Your task to perform on an android device: search for starred emails in the gmail app Image 0: 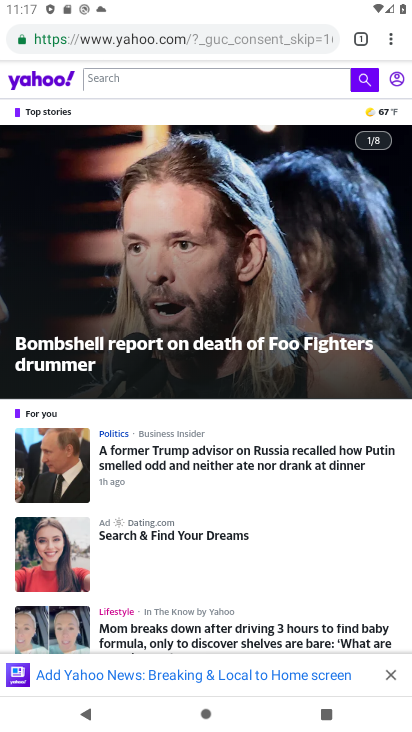
Step 0: press home button
Your task to perform on an android device: search for starred emails in the gmail app Image 1: 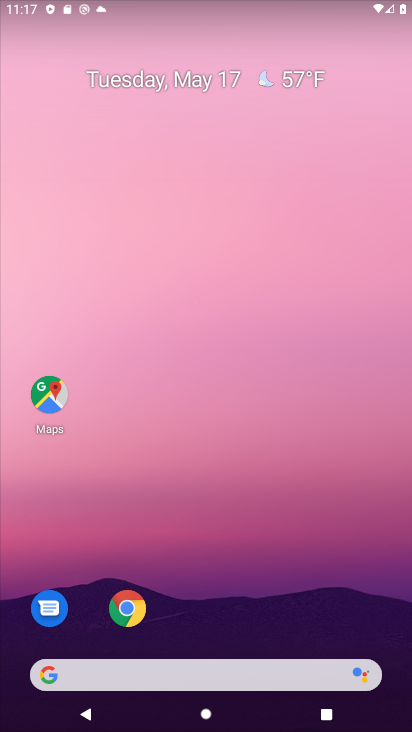
Step 1: drag from (185, 628) to (252, 74)
Your task to perform on an android device: search for starred emails in the gmail app Image 2: 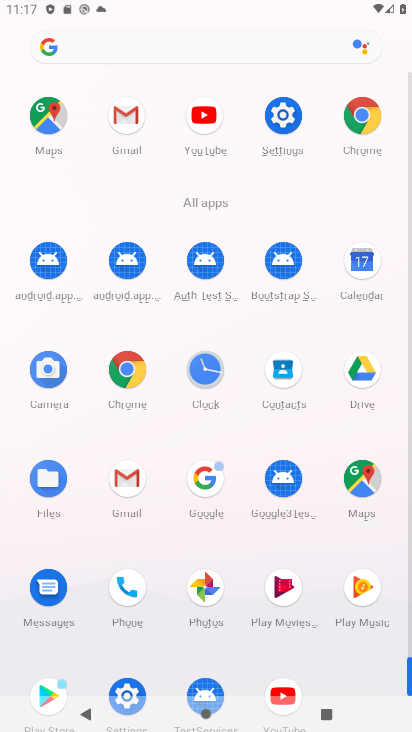
Step 2: click (124, 492)
Your task to perform on an android device: search for starred emails in the gmail app Image 3: 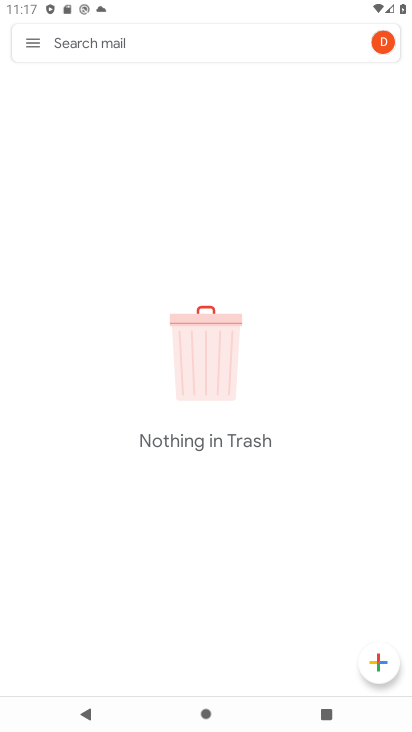
Step 3: click (28, 44)
Your task to perform on an android device: search for starred emails in the gmail app Image 4: 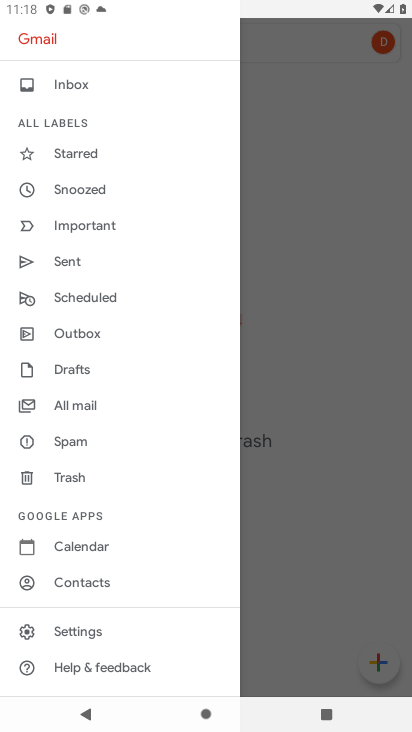
Step 4: click (91, 150)
Your task to perform on an android device: search for starred emails in the gmail app Image 5: 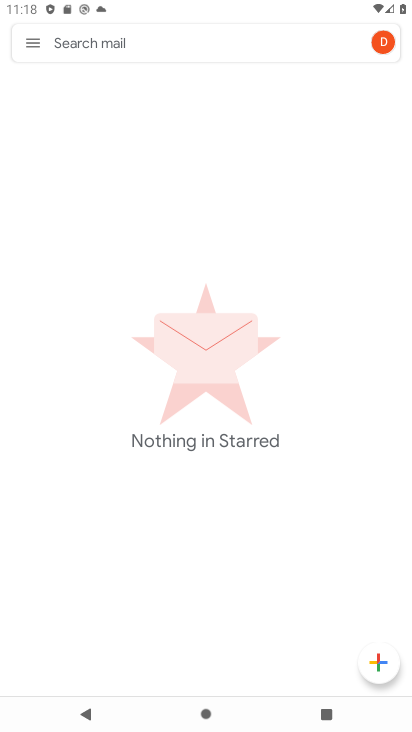
Step 5: task complete